Your task to perform on an android device: Open Maps and search for coffee Image 0: 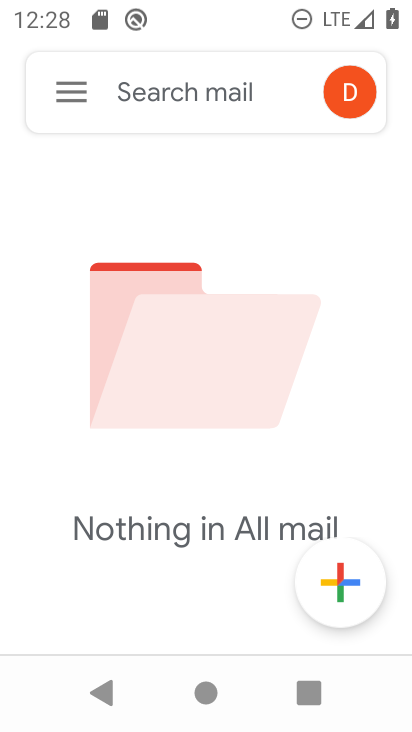
Step 0: press home button
Your task to perform on an android device: Open Maps and search for coffee Image 1: 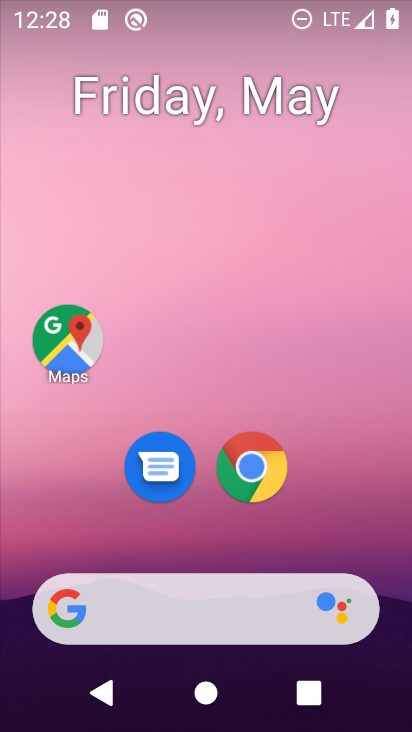
Step 1: drag from (295, 592) to (315, 29)
Your task to perform on an android device: Open Maps and search for coffee Image 2: 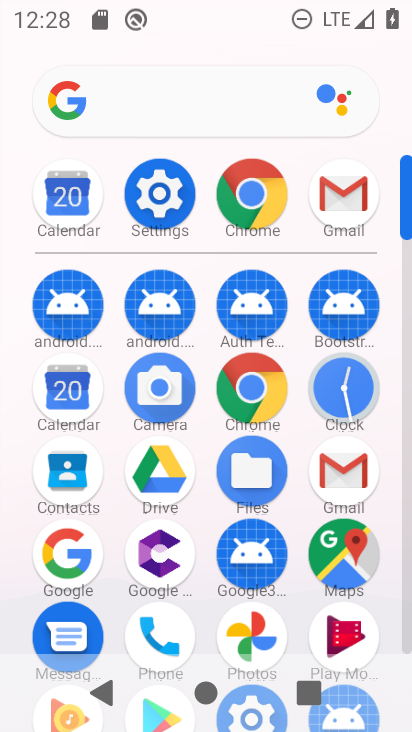
Step 2: click (351, 560)
Your task to perform on an android device: Open Maps and search for coffee Image 3: 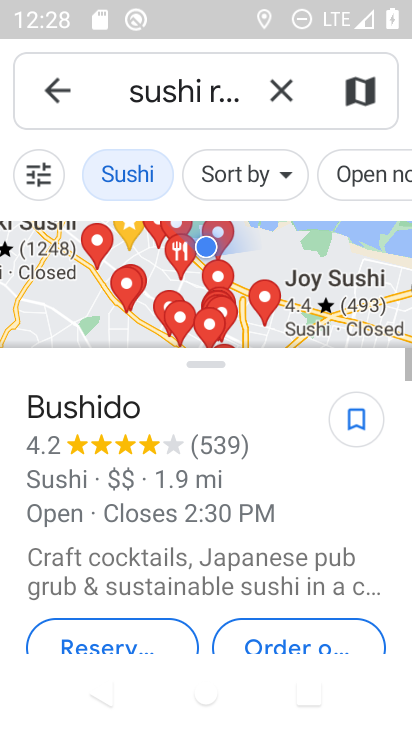
Step 3: click (274, 95)
Your task to perform on an android device: Open Maps and search for coffee Image 4: 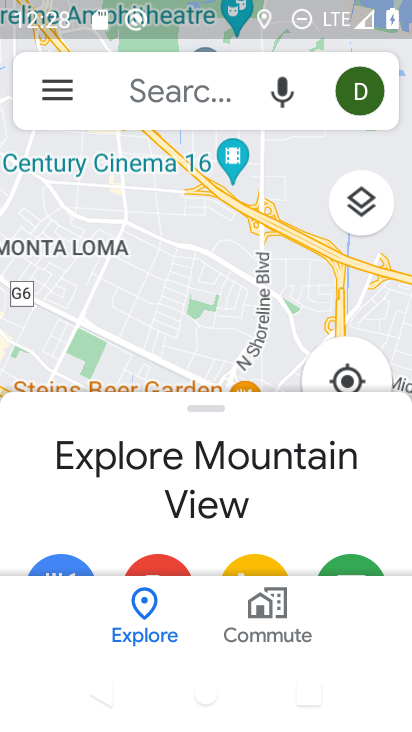
Step 4: click (174, 107)
Your task to perform on an android device: Open Maps and search for coffee Image 5: 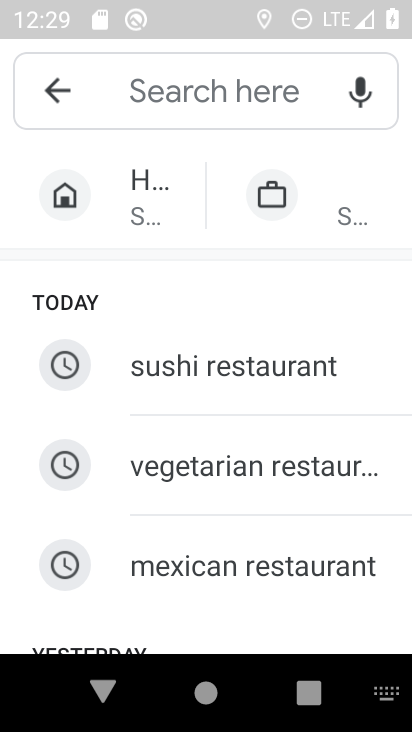
Step 5: type "coffee"
Your task to perform on an android device: Open Maps and search for coffee Image 6: 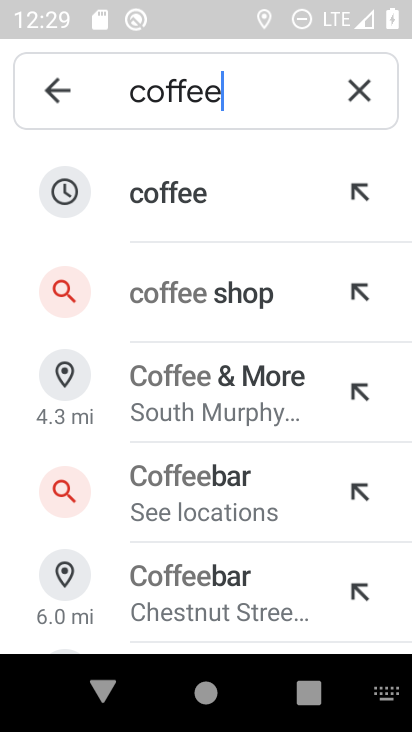
Step 6: click (178, 199)
Your task to perform on an android device: Open Maps and search for coffee Image 7: 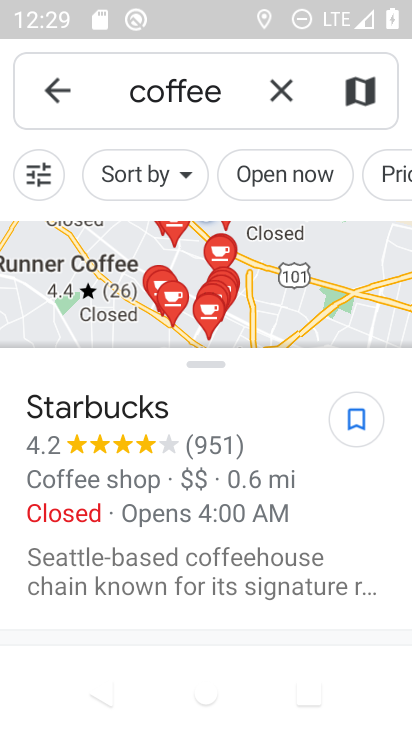
Step 7: task complete